Your task to perform on an android device: Go to internet settings Image 0: 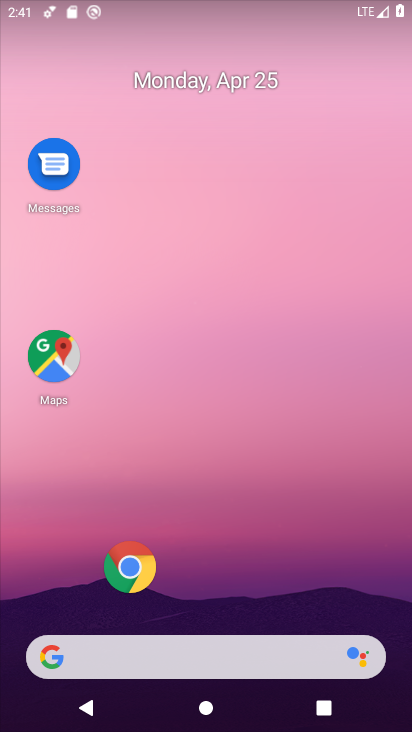
Step 0: drag from (246, 447) to (280, 50)
Your task to perform on an android device: Go to internet settings Image 1: 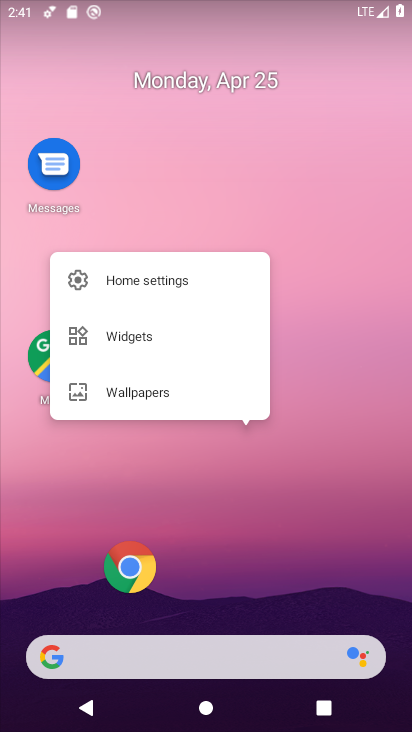
Step 1: click (277, 526)
Your task to perform on an android device: Go to internet settings Image 2: 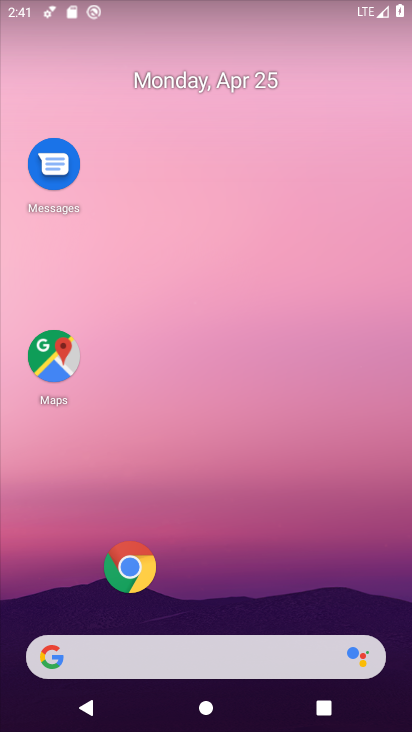
Step 2: drag from (270, 582) to (246, 287)
Your task to perform on an android device: Go to internet settings Image 3: 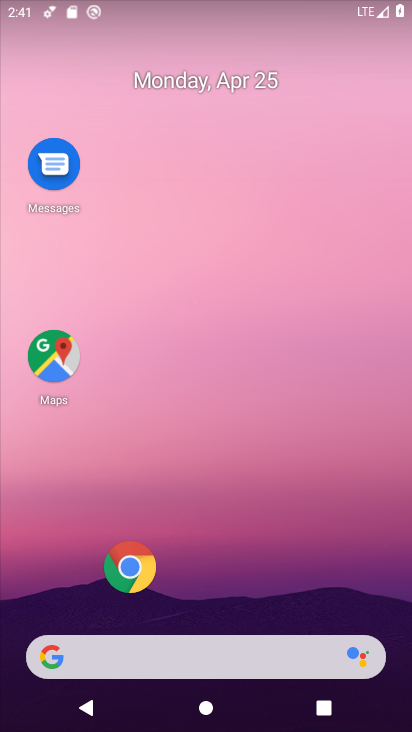
Step 3: drag from (238, 527) to (237, 126)
Your task to perform on an android device: Go to internet settings Image 4: 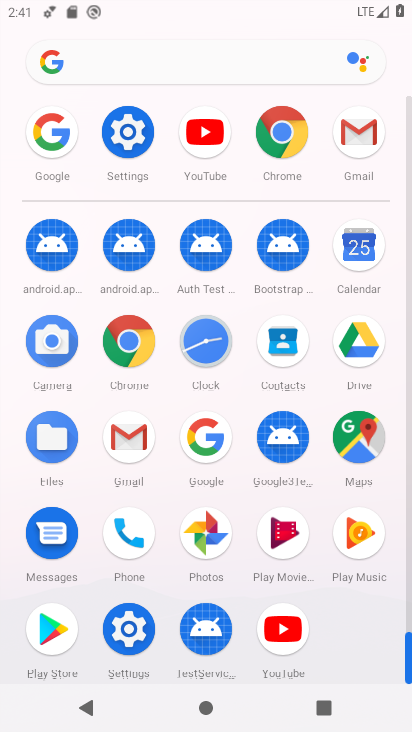
Step 4: click (133, 179)
Your task to perform on an android device: Go to internet settings Image 5: 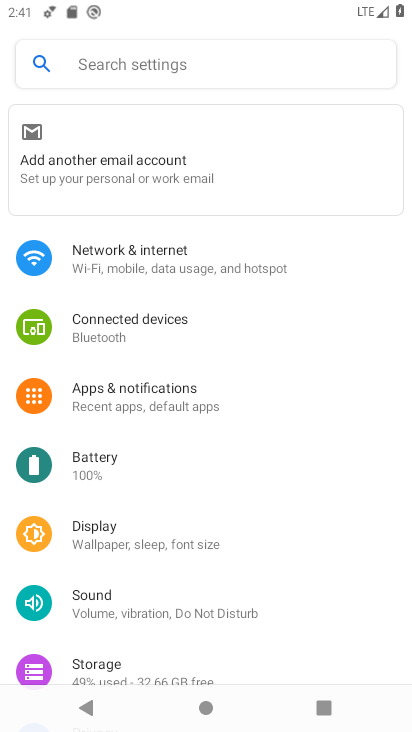
Step 5: click (141, 269)
Your task to perform on an android device: Go to internet settings Image 6: 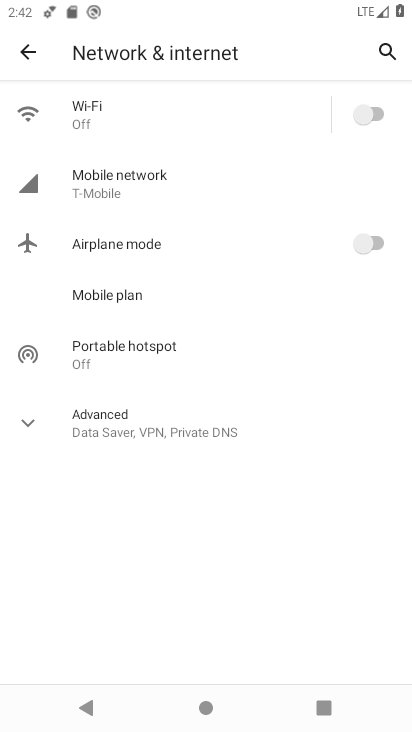
Step 6: click (166, 170)
Your task to perform on an android device: Go to internet settings Image 7: 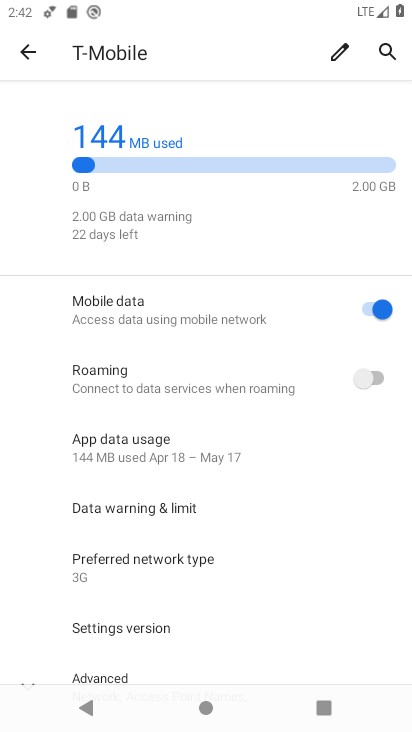
Step 7: task complete